Your task to perform on an android device: Open the web browser Image 0: 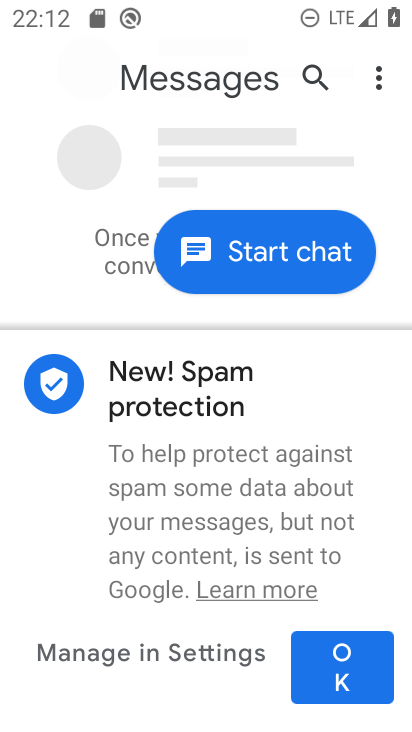
Step 0: press home button
Your task to perform on an android device: Open the web browser Image 1: 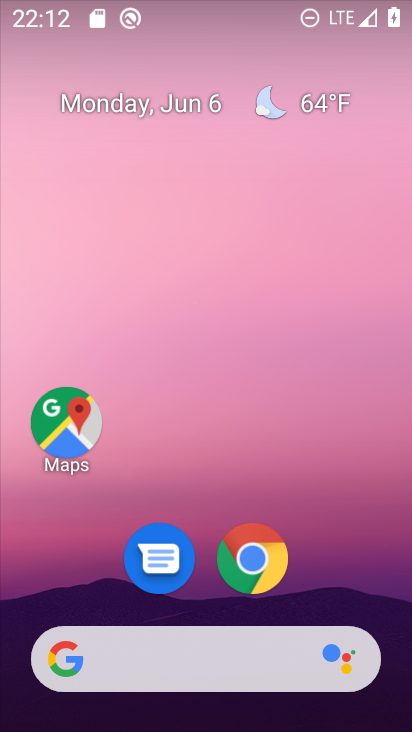
Step 1: click (257, 562)
Your task to perform on an android device: Open the web browser Image 2: 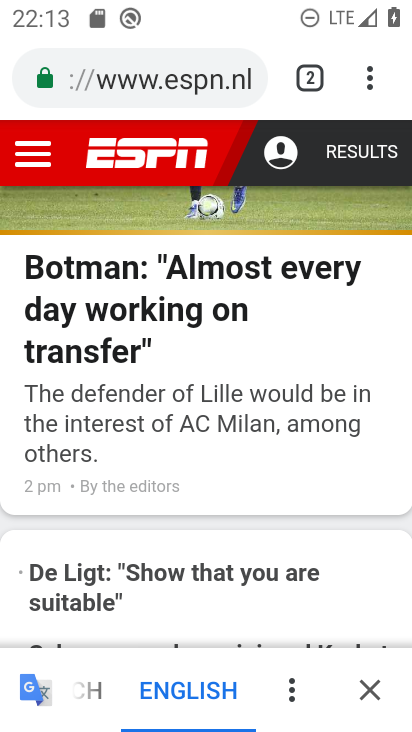
Step 2: task complete